Your task to perform on an android device: Go to Google maps Image 0: 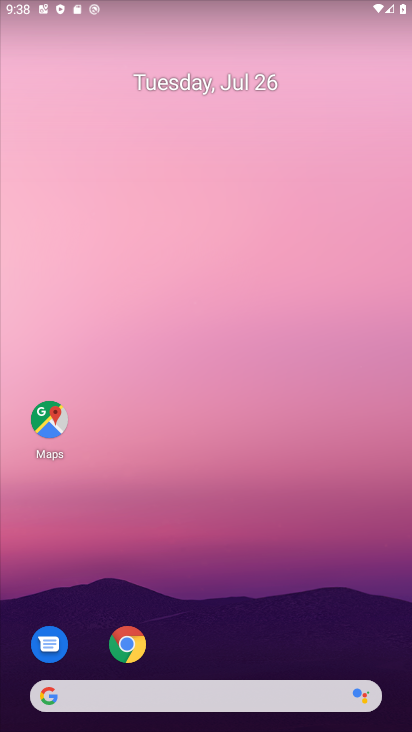
Step 0: click (56, 405)
Your task to perform on an android device: Go to Google maps Image 1: 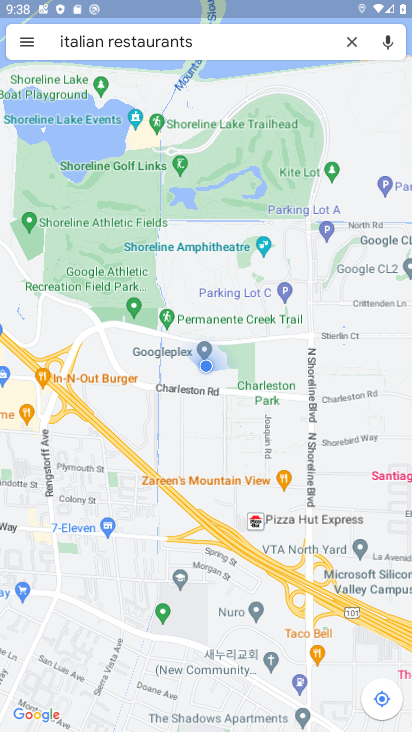
Step 1: click (345, 39)
Your task to perform on an android device: Go to Google maps Image 2: 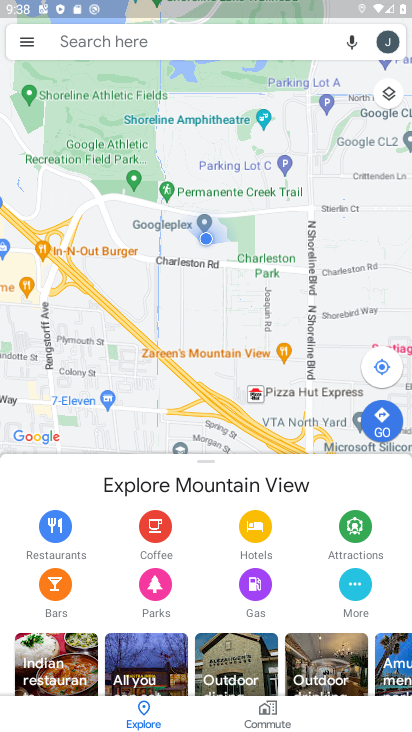
Step 2: task complete